Your task to perform on an android device: change keyboard looks Image 0: 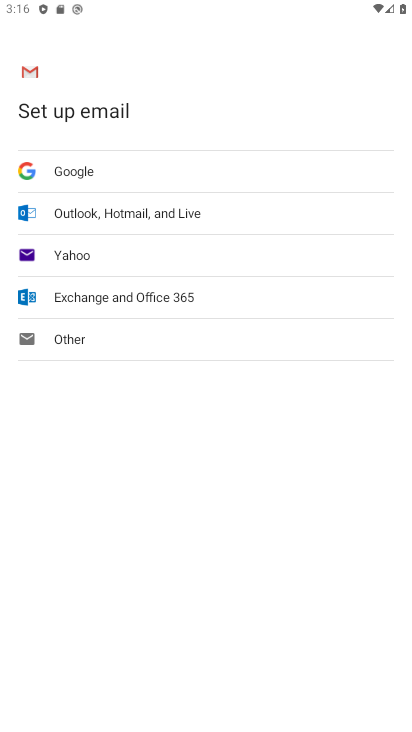
Step 0: press home button
Your task to perform on an android device: change keyboard looks Image 1: 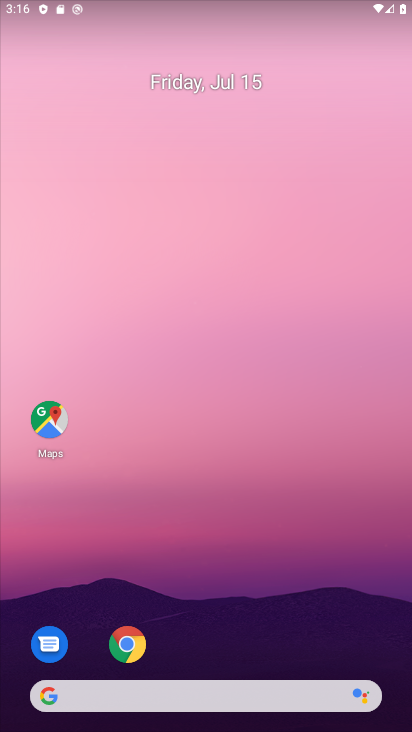
Step 1: drag from (253, 665) to (191, 142)
Your task to perform on an android device: change keyboard looks Image 2: 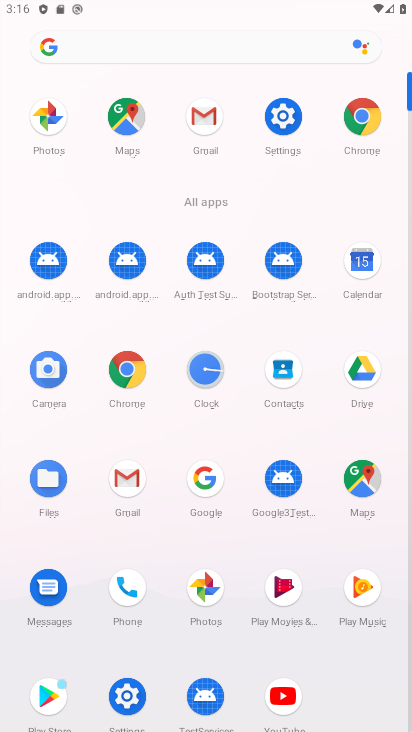
Step 2: click (299, 128)
Your task to perform on an android device: change keyboard looks Image 3: 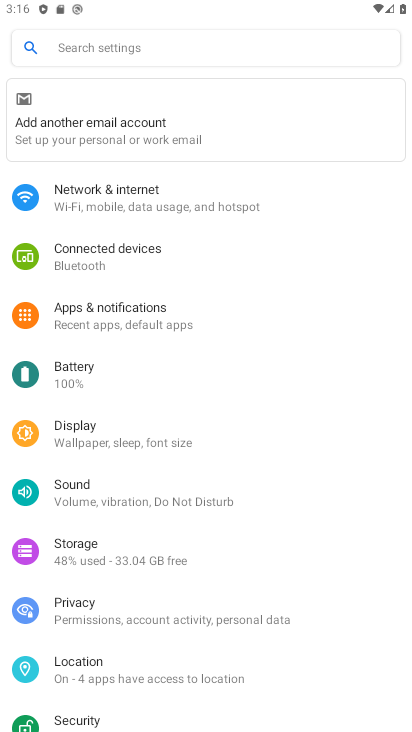
Step 3: drag from (228, 657) to (138, 149)
Your task to perform on an android device: change keyboard looks Image 4: 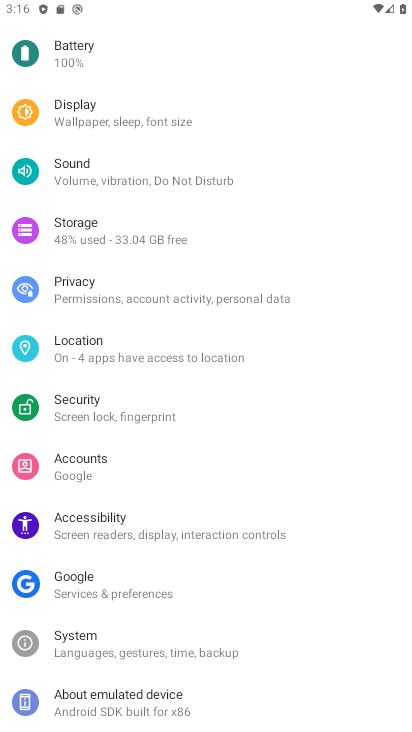
Step 4: click (149, 655)
Your task to perform on an android device: change keyboard looks Image 5: 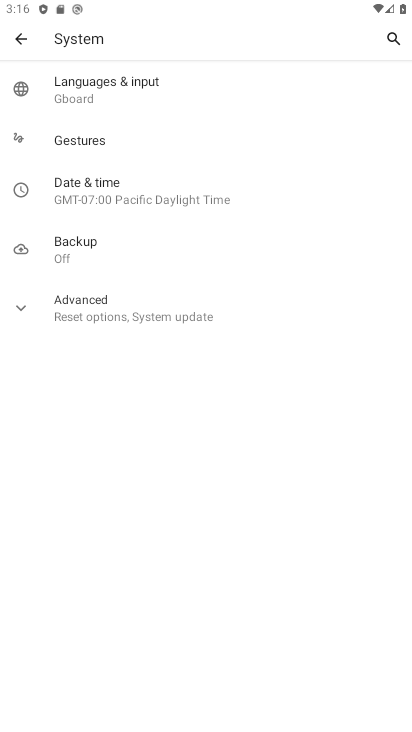
Step 5: click (164, 78)
Your task to perform on an android device: change keyboard looks Image 6: 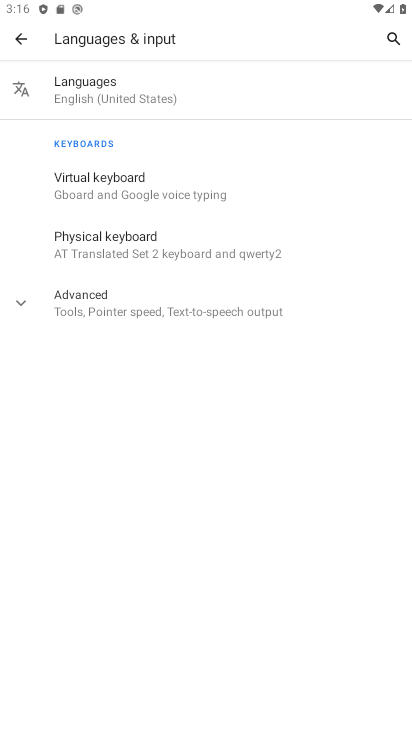
Step 6: click (160, 193)
Your task to perform on an android device: change keyboard looks Image 7: 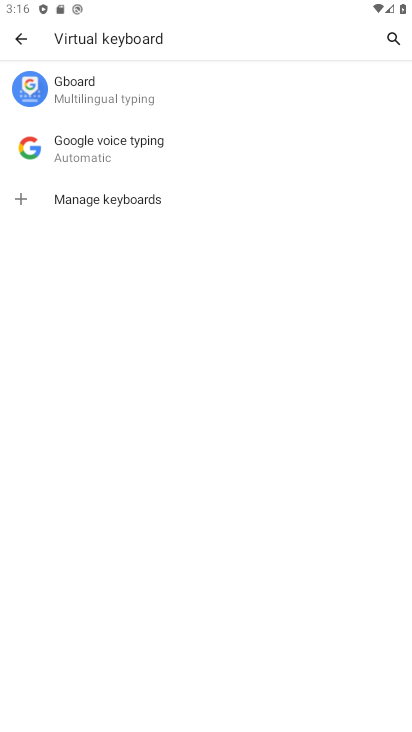
Step 7: click (122, 98)
Your task to perform on an android device: change keyboard looks Image 8: 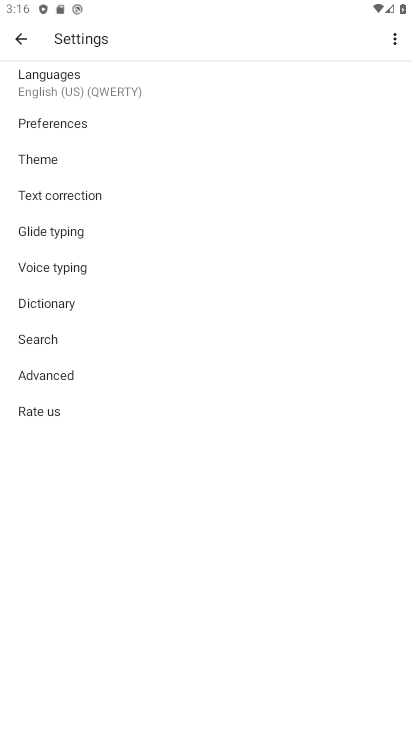
Step 8: click (136, 156)
Your task to perform on an android device: change keyboard looks Image 9: 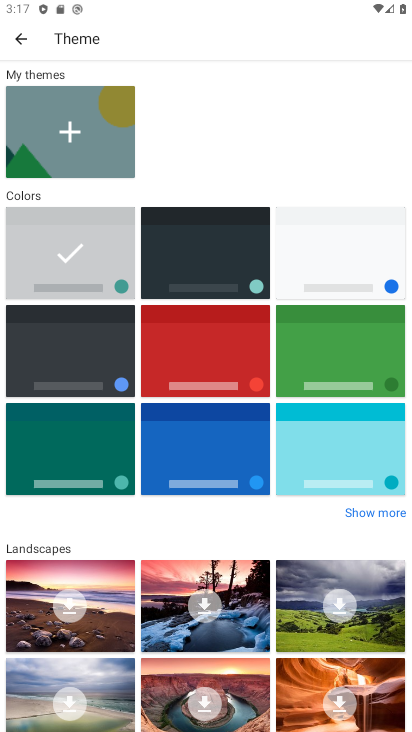
Step 9: click (204, 236)
Your task to perform on an android device: change keyboard looks Image 10: 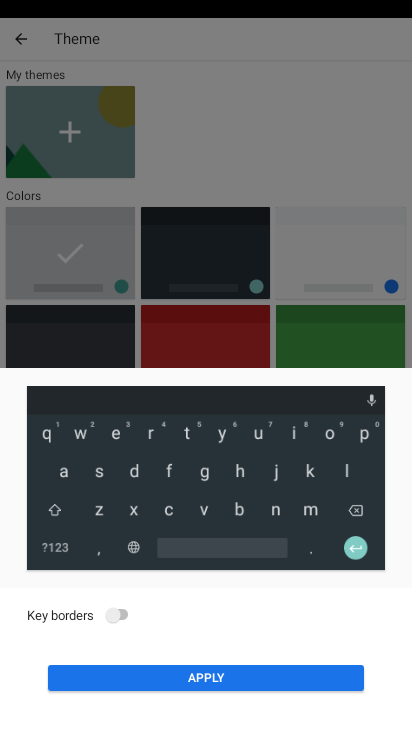
Step 10: click (216, 678)
Your task to perform on an android device: change keyboard looks Image 11: 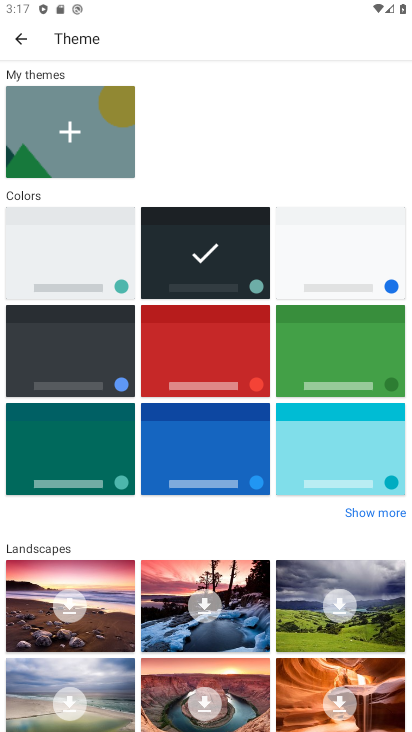
Step 11: task complete